Your task to perform on an android device: change the clock display to show seconds Image 0: 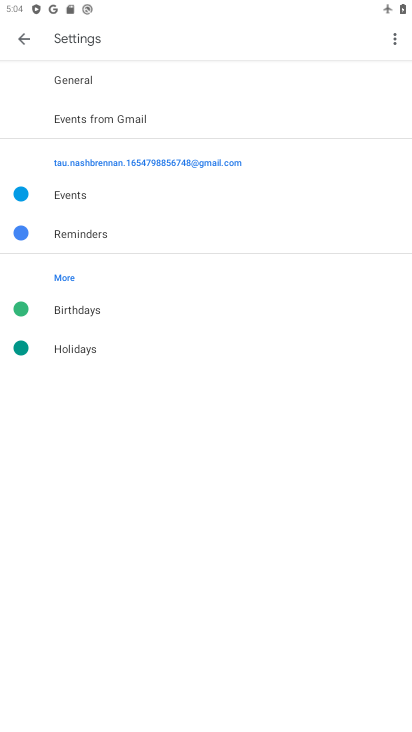
Step 0: press home button
Your task to perform on an android device: change the clock display to show seconds Image 1: 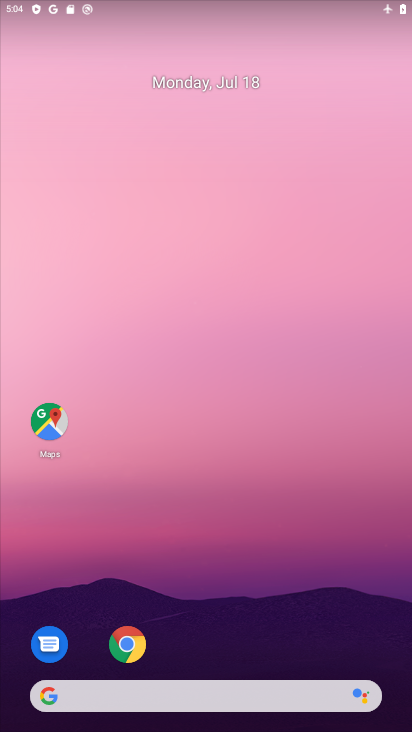
Step 1: press home button
Your task to perform on an android device: change the clock display to show seconds Image 2: 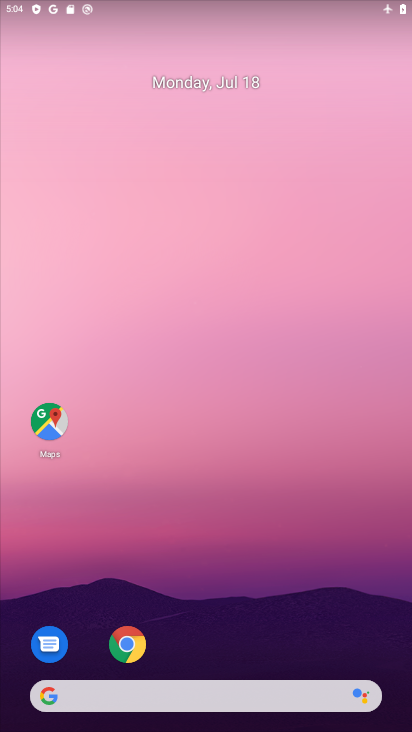
Step 2: drag from (271, 493) to (318, 30)
Your task to perform on an android device: change the clock display to show seconds Image 3: 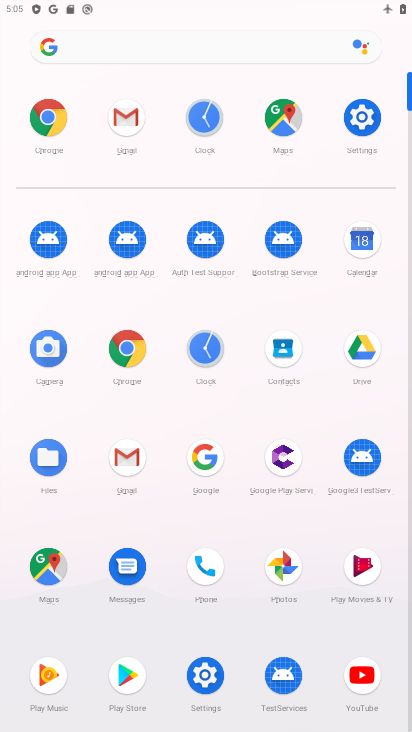
Step 3: click (210, 114)
Your task to perform on an android device: change the clock display to show seconds Image 4: 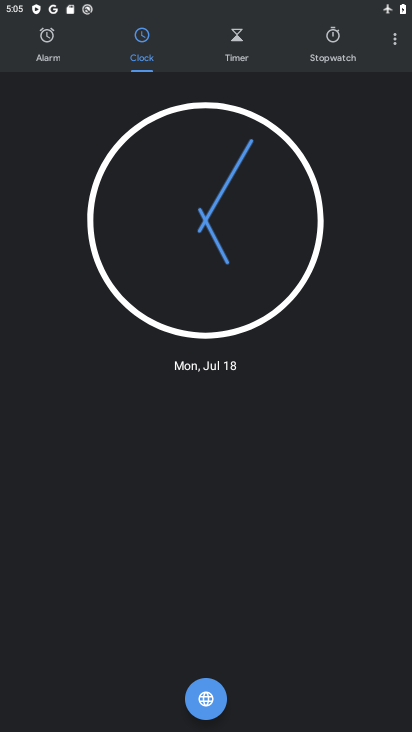
Step 4: click (396, 33)
Your task to perform on an android device: change the clock display to show seconds Image 5: 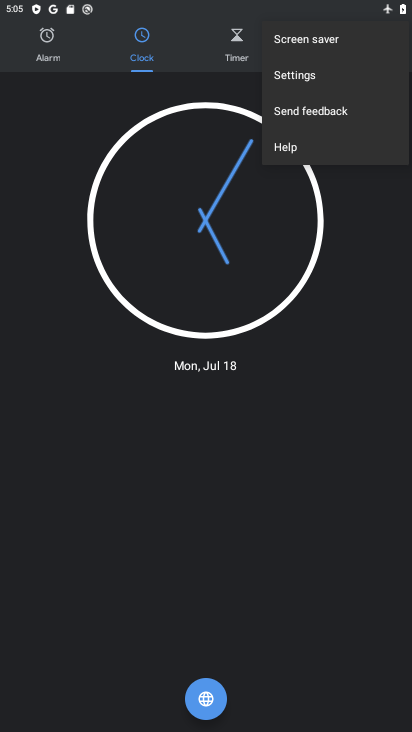
Step 5: click (317, 72)
Your task to perform on an android device: change the clock display to show seconds Image 6: 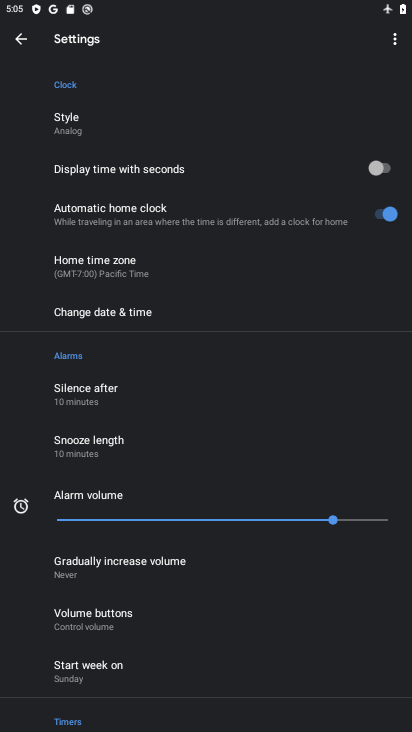
Step 6: click (389, 166)
Your task to perform on an android device: change the clock display to show seconds Image 7: 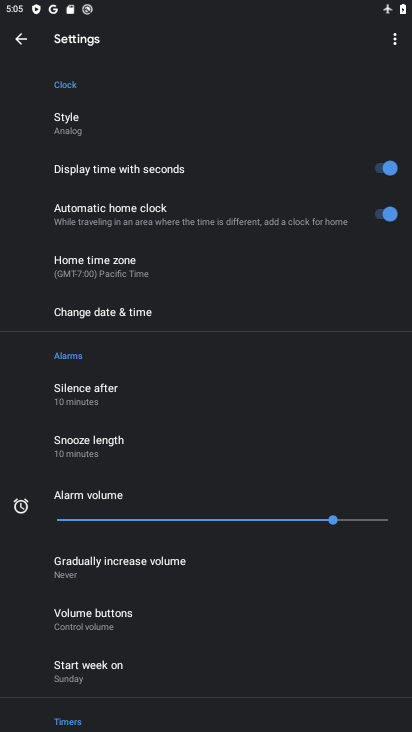
Step 7: task complete